Your task to perform on an android device: Show the shopping cart on bestbuy. Add "dell xps" to the cart on bestbuy, then select checkout. Image 0: 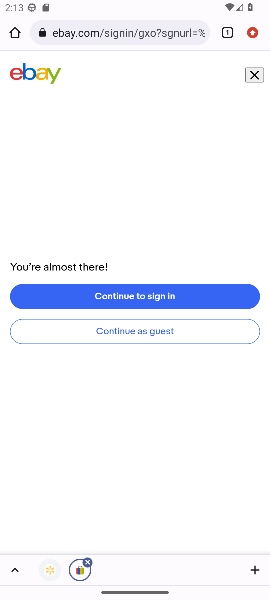
Step 0: task complete